Your task to perform on an android device: Show me productivity apps on the Play Store Image 0: 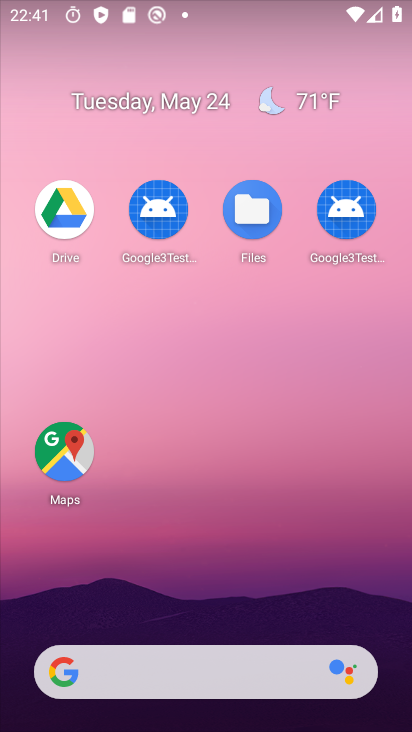
Step 0: drag from (249, 628) to (167, 119)
Your task to perform on an android device: Show me productivity apps on the Play Store Image 1: 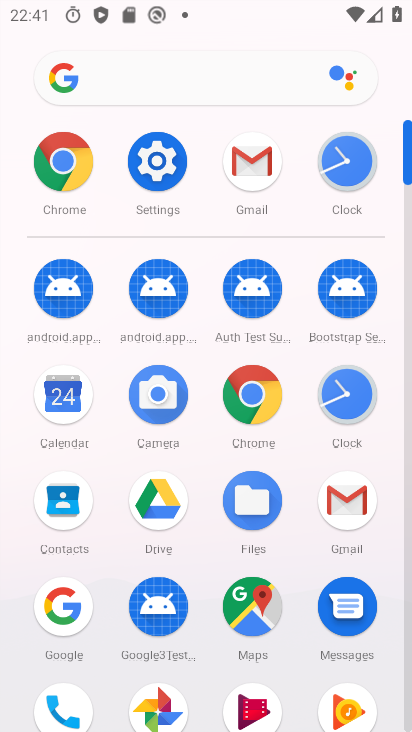
Step 1: drag from (211, 645) to (356, 10)
Your task to perform on an android device: Show me productivity apps on the Play Store Image 2: 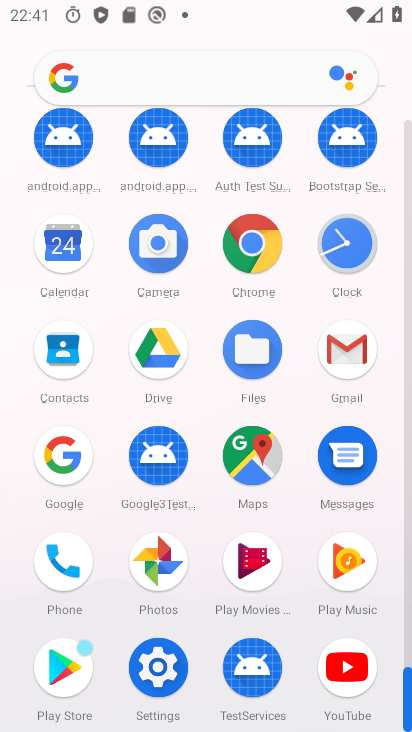
Step 2: click (74, 655)
Your task to perform on an android device: Show me productivity apps on the Play Store Image 3: 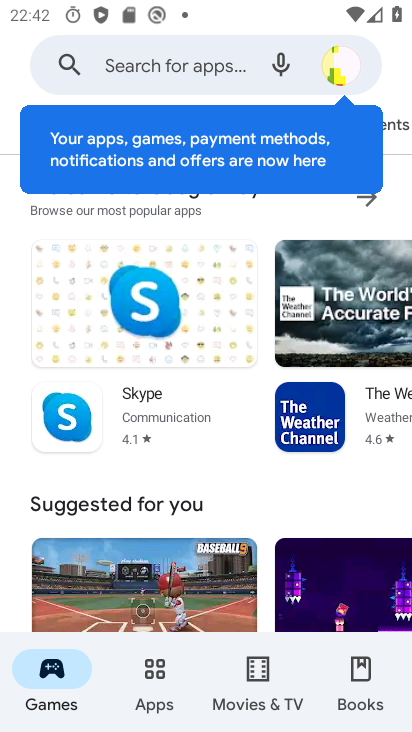
Step 3: click (157, 685)
Your task to perform on an android device: Show me productivity apps on the Play Store Image 4: 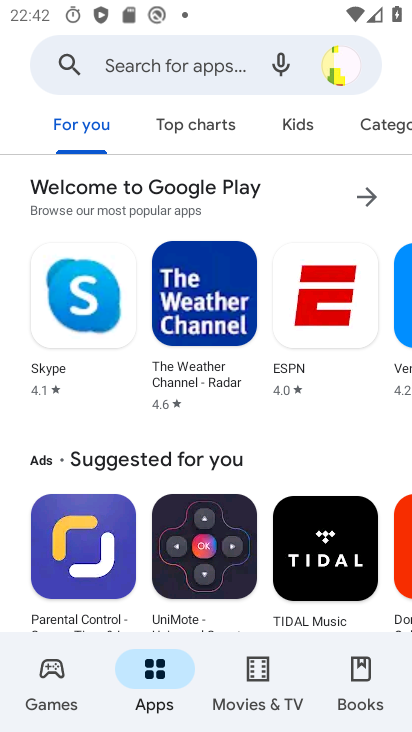
Step 4: click (363, 124)
Your task to perform on an android device: Show me productivity apps on the Play Store Image 5: 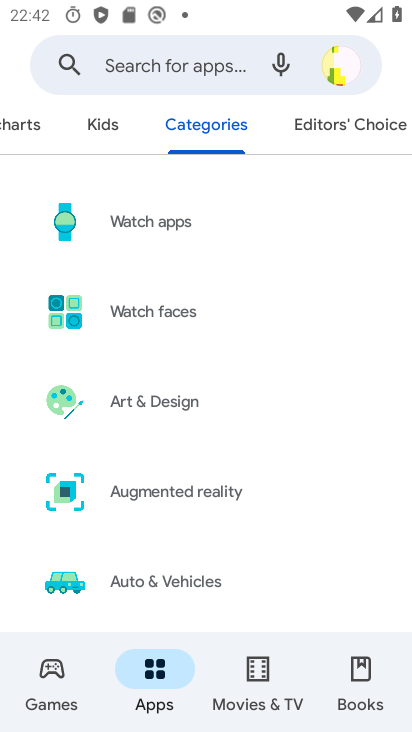
Step 5: drag from (209, 498) to (152, 128)
Your task to perform on an android device: Show me productivity apps on the Play Store Image 6: 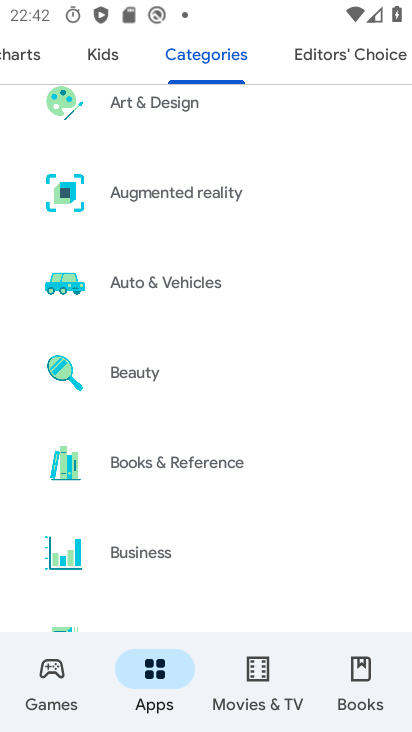
Step 6: drag from (164, 523) to (139, 182)
Your task to perform on an android device: Show me productivity apps on the Play Store Image 7: 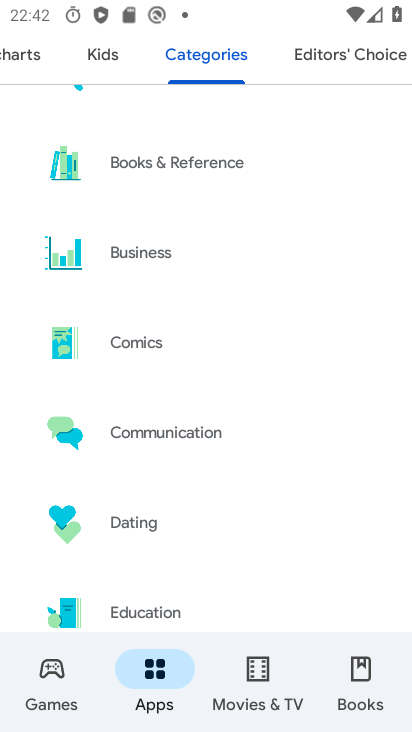
Step 7: drag from (158, 503) to (126, 127)
Your task to perform on an android device: Show me productivity apps on the Play Store Image 8: 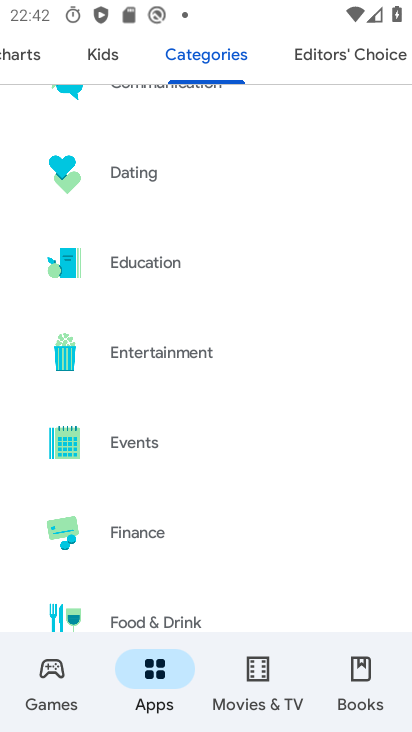
Step 8: drag from (203, 564) to (175, 54)
Your task to perform on an android device: Show me productivity apps on the Play Store Image 9: 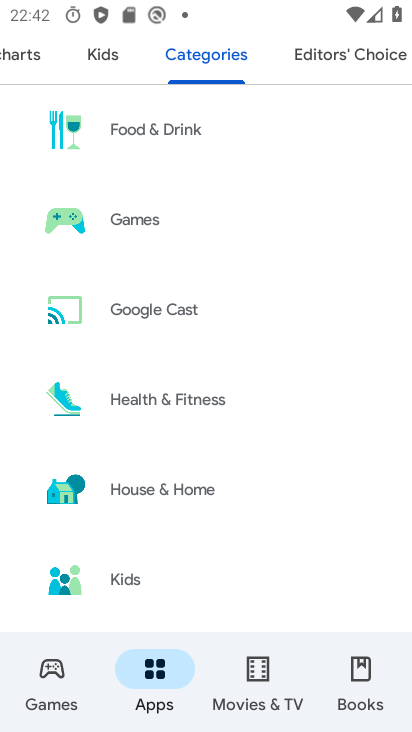
Step 9: drag from (162, 511) to (117, 127)
Your task to perform on an android device: Show me productivity apps on the Play Store Image 10: 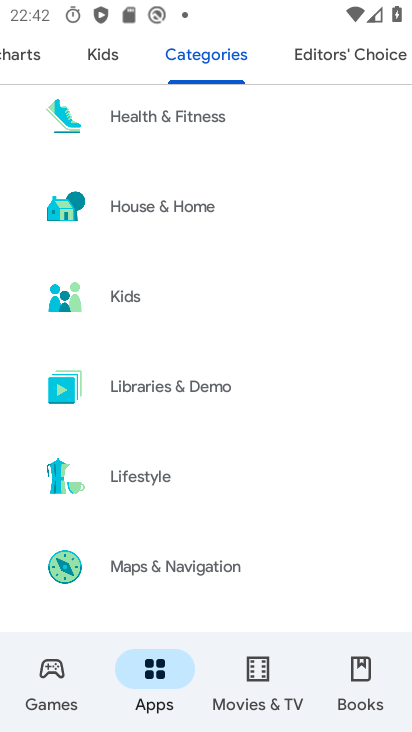
Step 10: drag from (156, 466) to (121, 2)
Your task to perform on an android device: Show me productivity apps on the Play Store Image 11: 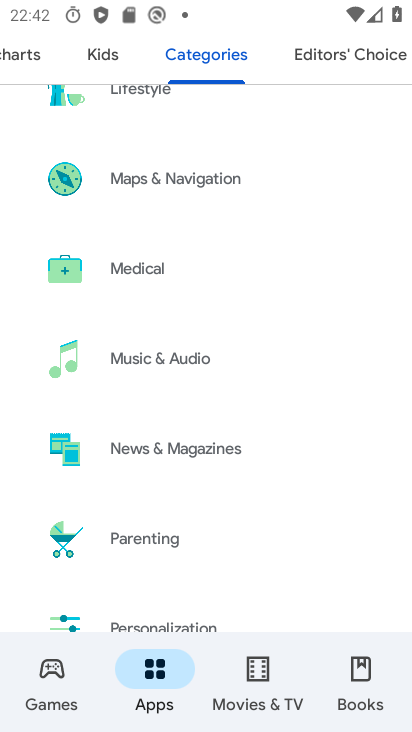
Step 11: drag from (149, 469) to (148, 240)
Your task to perform on an android device: Show me productivity apps on the Play Store Image 12: 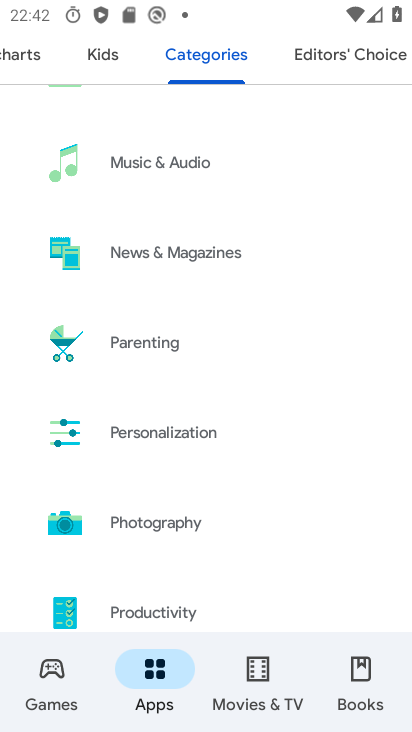
Step 12: click (123, 595)
Your task to perform on an android device: Show me productivity apps on the Play Store Image 13: 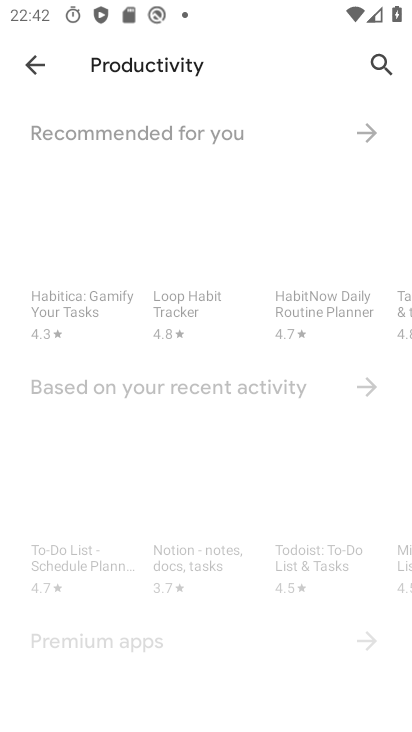
Step 13: task complete